Your task to perform on an android device: refresh tabs in the chrome app Image 0: 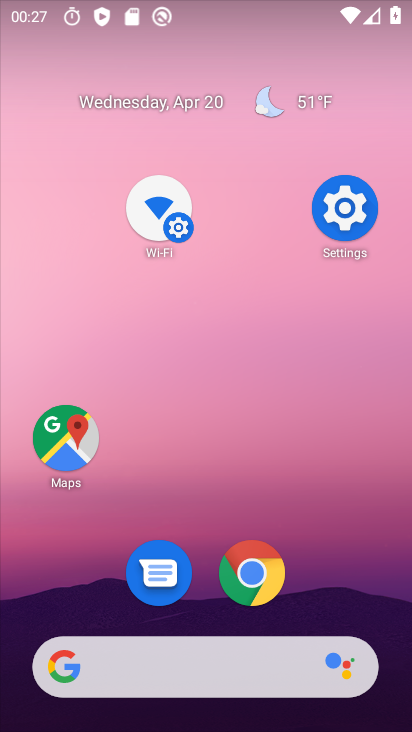
Step 0: press home button
Your task to perform on an android device: refresh tabs in the chrome app Image 1: 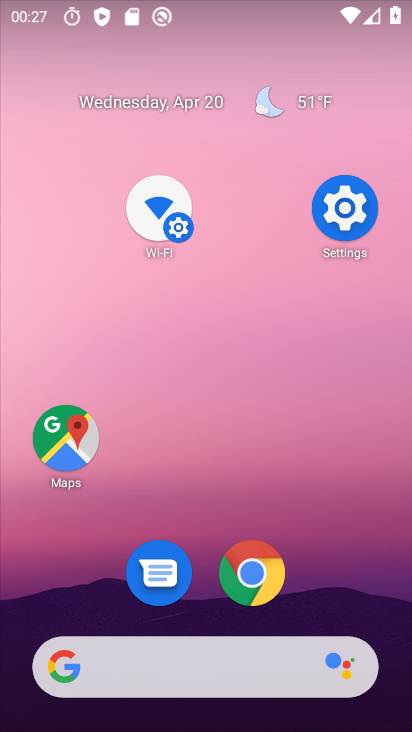
Step 1: click (269, 571)
Your task to perform on an android device: refresh tabs in the chrome app Image 2: 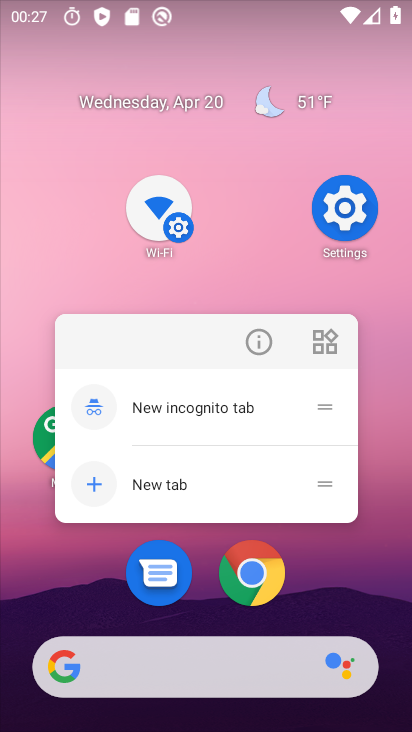
Step 2: click (257, 579)
Your task to perform on an android device: refresh tabs in the chrome app Image 3: 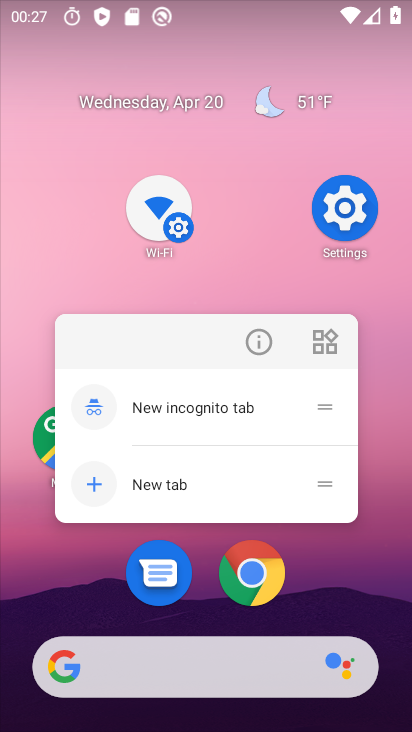
Step 3: click (256, 567)
Your task to perform on an android device: refresh tabs in the chrome app Image 4: 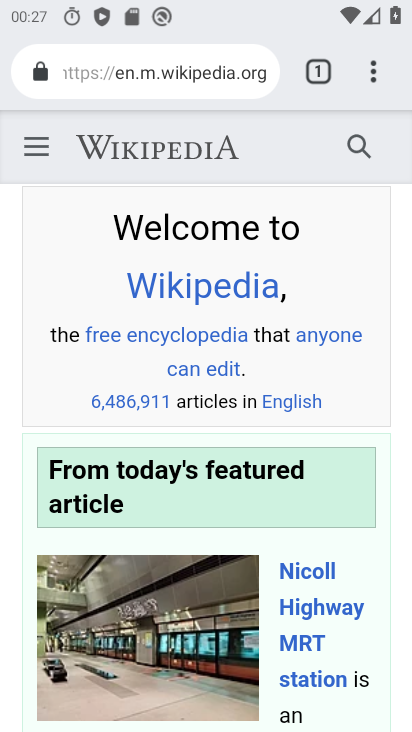
Step 4: click (314, 73)
Your task to perform on an android device: refresh tabs in the chrome app Image 5: 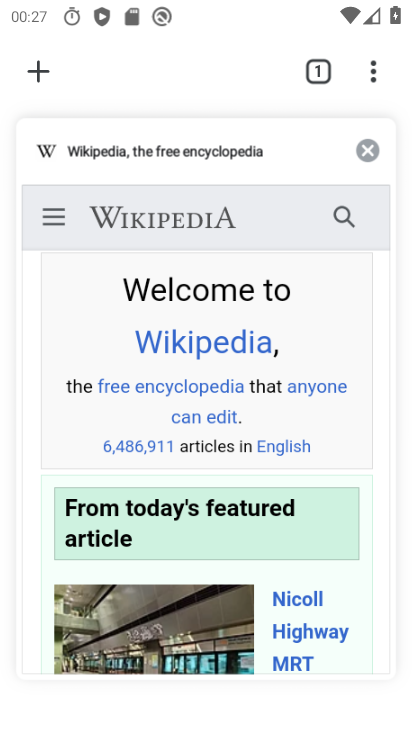
Step 5: click (39, 67)
Your task to perform on an android device: refresh tabs in the chrome app Image 6: 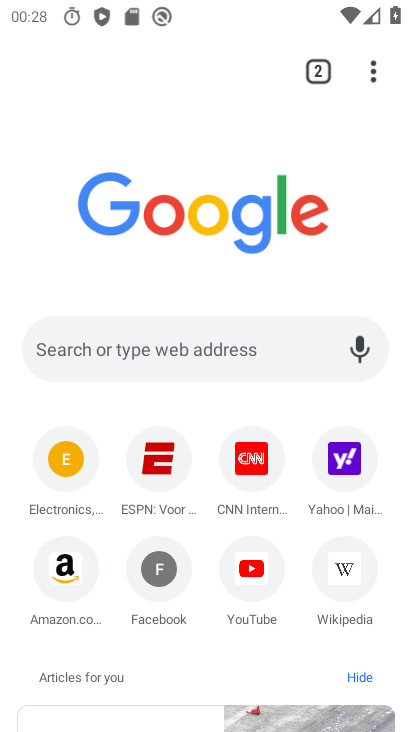
Step 6: click (373, 73)
Your task to perform on an android device: refresh tabs in the chrome app Image 7: 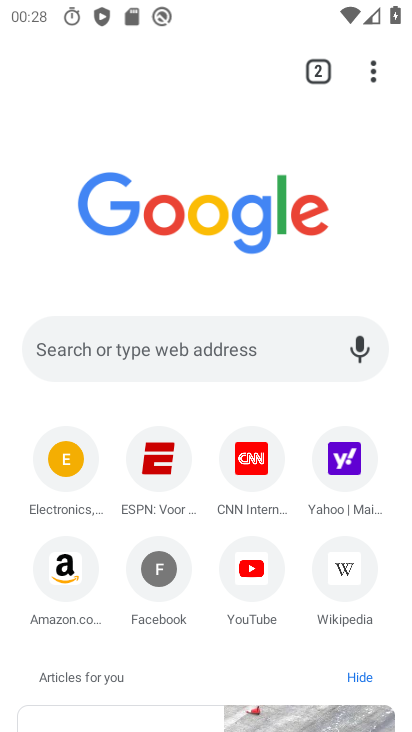
Step 7: task complete